Your task to perform on an android device: toggle data saver in the chrome app Image 0: 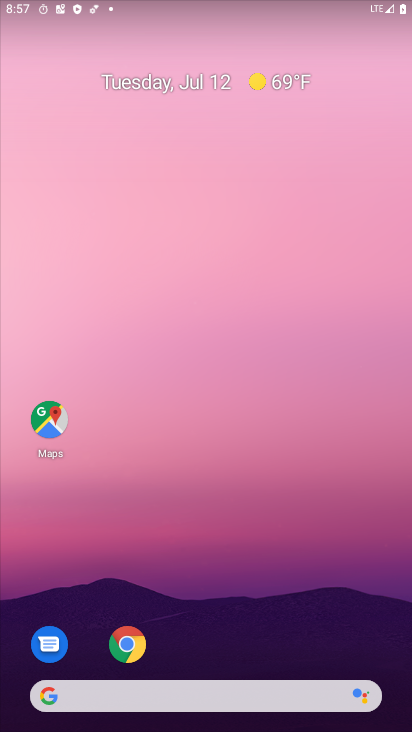
Step 0: click (123, 645)
Your task to perform on an android device: toggle data saver in the chrome app Image 1: 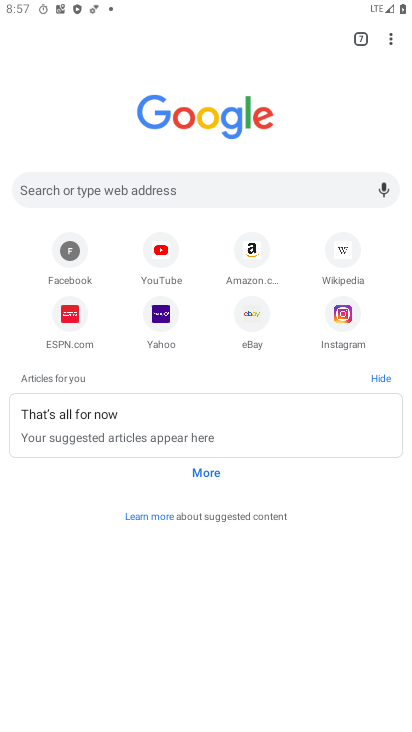
Step 1: click (392, 34)
Your task to perform on an android device: toggle data saver in the chrome app Image 2: 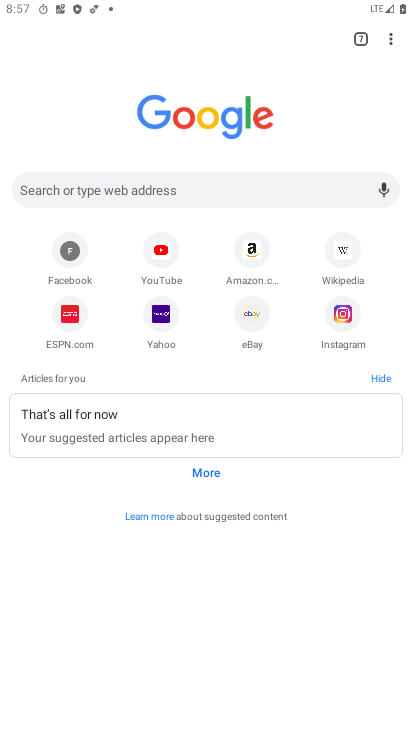
Step 2: click (390, 36)
Your task to perform on an android device: toggle data saver in the chrome app Image 3: 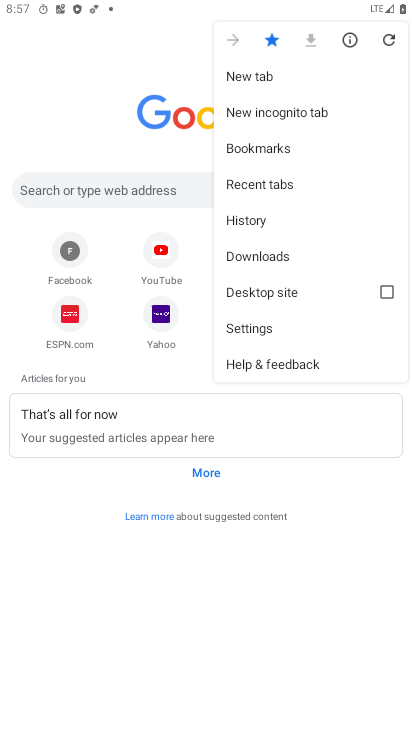
Step 3: click (273, 327)
Your task to perform on an android device: toggle data saver in the chrome app Image 4: 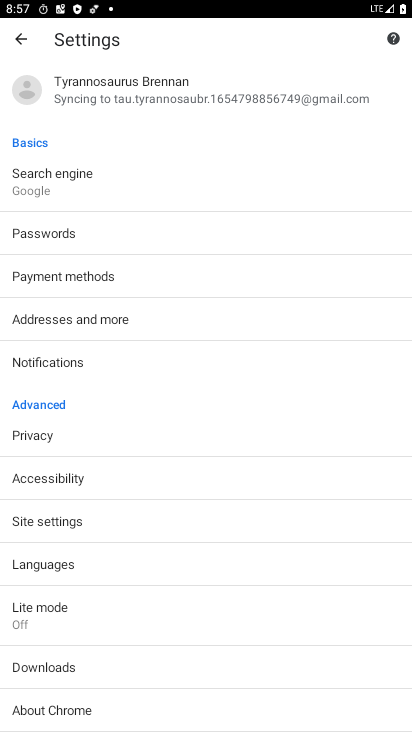
Step 4: click (64, 619)
Your task to perform on an android device: toggle data saver in the chrome app Image 5: 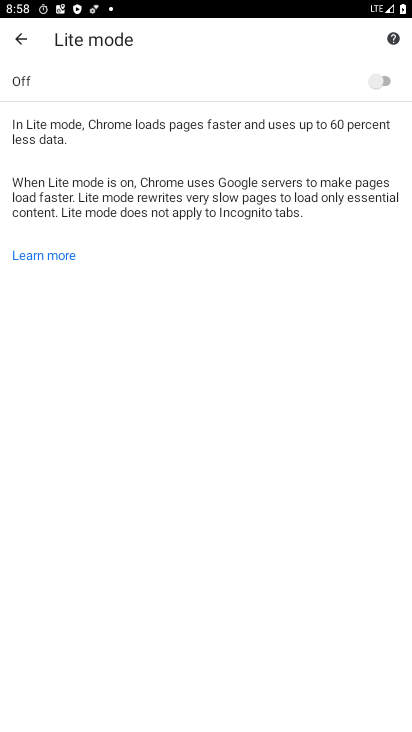
Step 5: click (384, 80)
Your task to perform on an android device: toggle data saver in the chrome app Image 6: 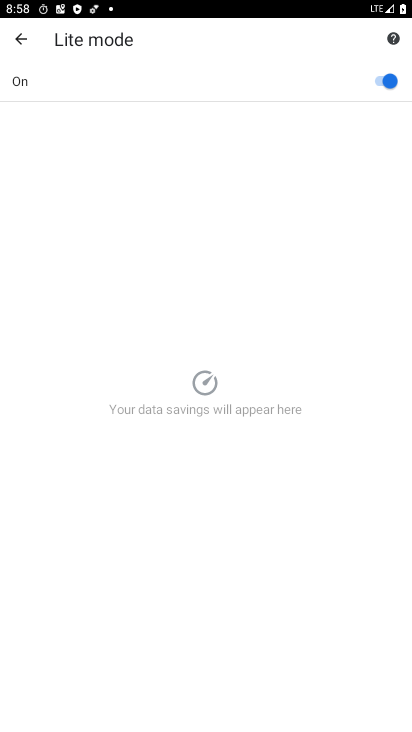
Step 6: task complete